Your task to perform on an android device: Open Yahoo.com Image 0: 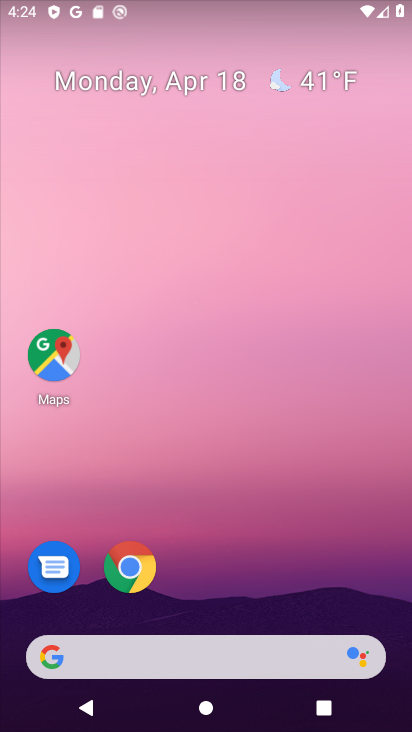
Step 0: click (129, 565)
Your task to perform on an android device: Open Yahoo.com Image 1: 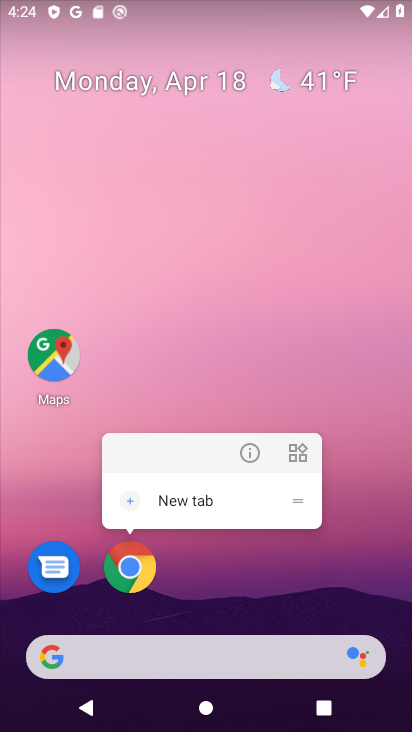
Step 1: click (129, 565)
Your task to perform on an android device: Open Yahoo.com Image 2: 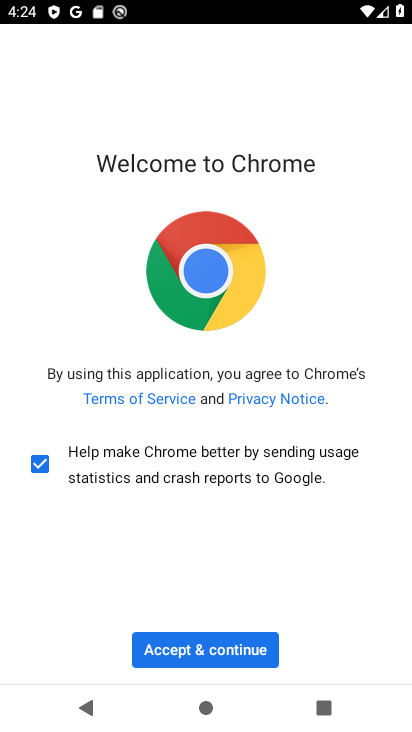
Step 2: click (212, 658)
Your task to perform on an android device: Open Yahoo.com Image 3: 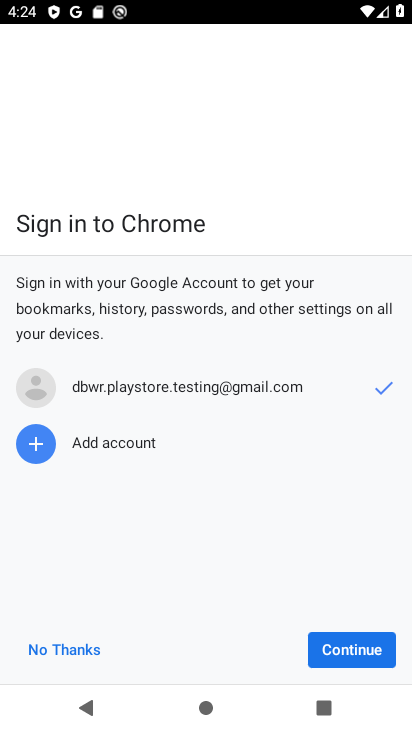
Step 3: click (333, 654)
Your task to perform on an android device: Open Yahoo.com Image 4: 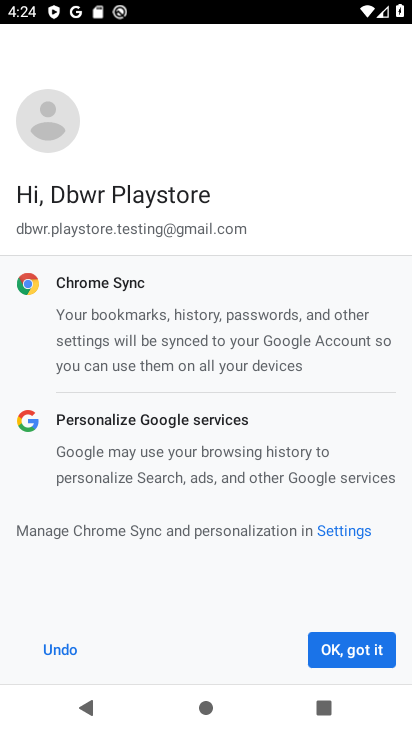
Step 4: click (333, 654)
Your task to perform on an android device: Open Yahoo.com Image 5: 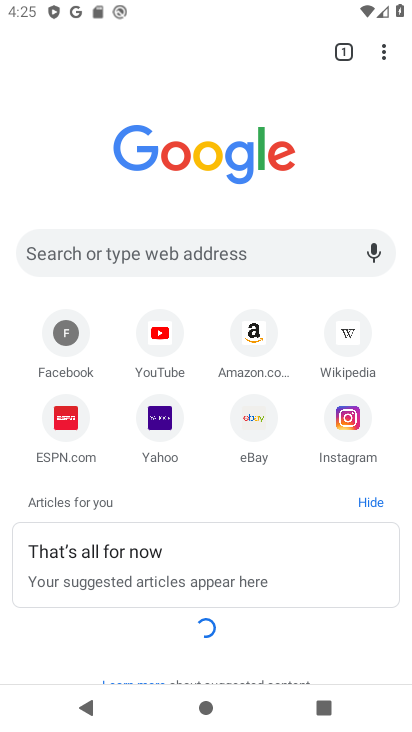
Step 5: click (190, 256)
Your task to perform on an android device: Open Yahoo.com Image 6: 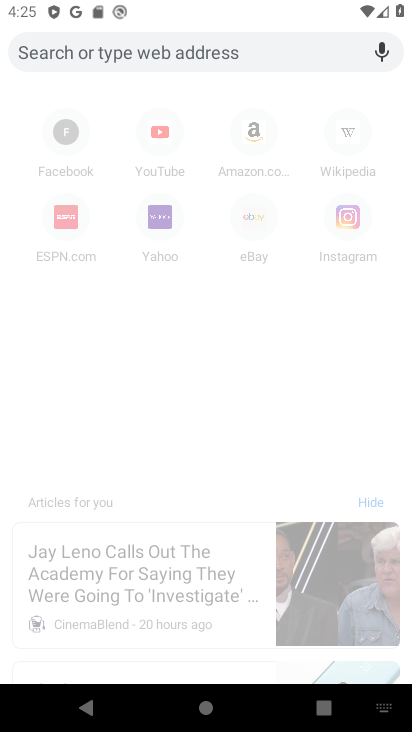
Step 6: type "Yahoo.com"
Your task to perform on an android device: Open Yahoo.com Image 7: 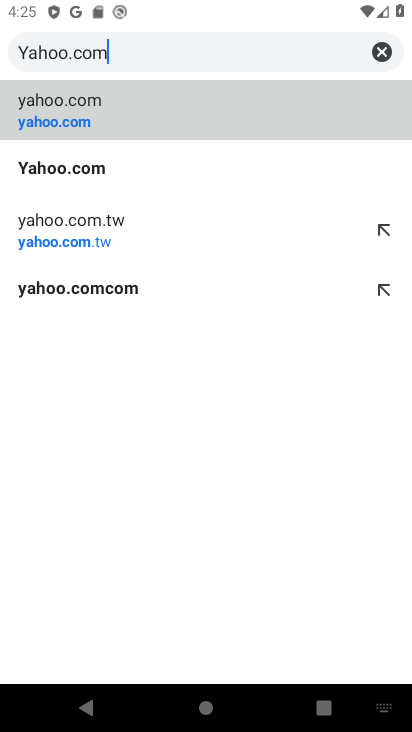
Step 7: click (61, 166)
Your task to perform on an android device: Open Yahoo.com Image 8: 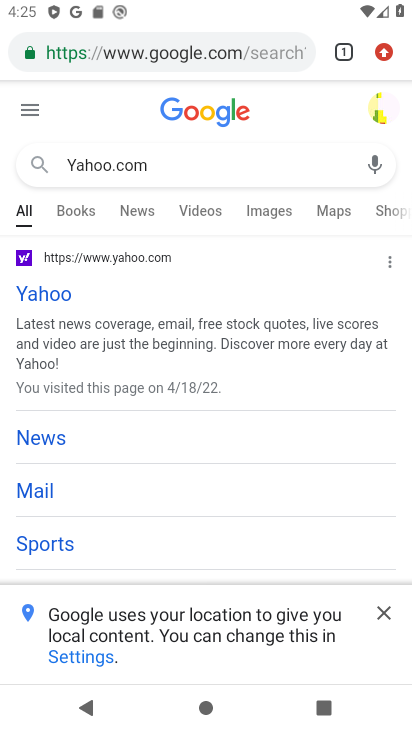
Step 8: click (387, 613)
Your task to perform on an android device: Open Yahoo.com Image 9: 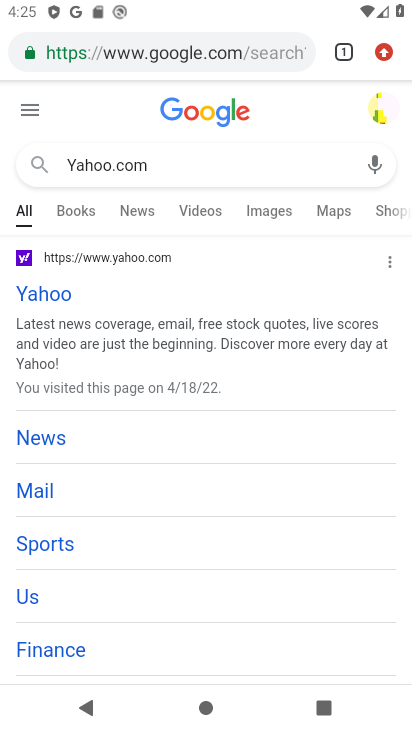
Step 9: task complete